Your task to perform on an android device: View the shopping cart on walmart.com. Search for "asus zenbook" on walmart.com, select the first entry, add it to the cart, then select checkout. Image 0: 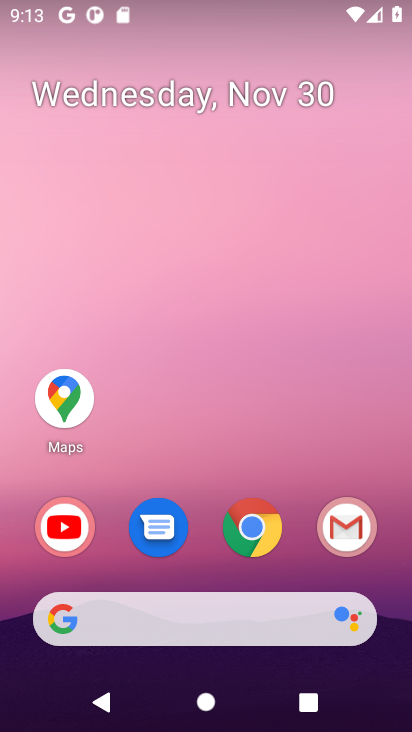
Step 0: click (247, 525)
Your task to perform on an android device: View the shopping cart on walmart.com. Search for "asus zenbook" on walmart.com, select the first entry, add it to the cart, then select checkout. Image 1: 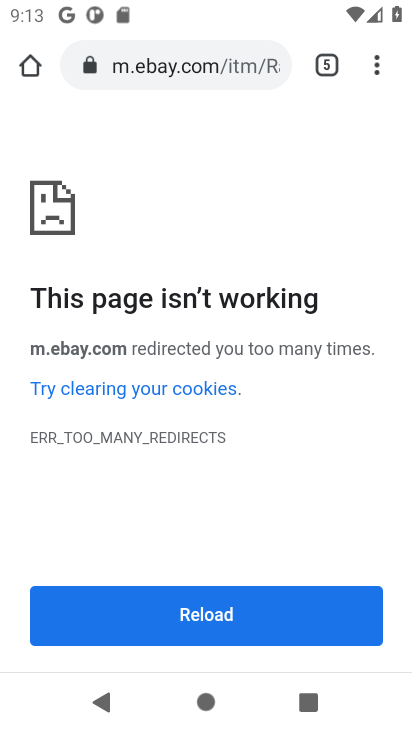
Step 1: click (216, 73)
Your task to perform on an android device: View the shopping cart on walmart.com. Search for "asus zenbook" on walmart.com, select the first entry, add it to the cart, then select checkout. Image 2: 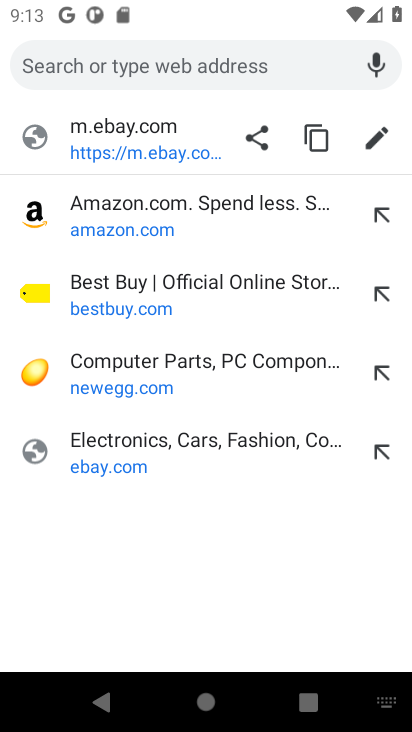
Step 2: type "walmart.com"
Your task to perform on an android device: View the shopping cart on walmart.com. Search for "asus zenbook" on walmart.com, select the first entry, add it to the cart, then select checkout. Image 3: 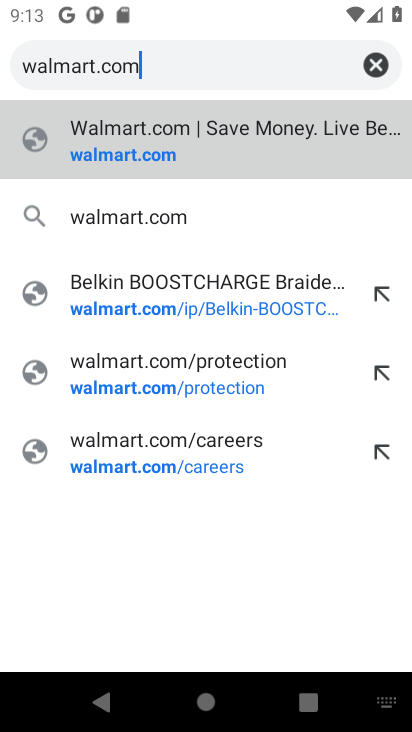
Step 3: click (141, 216)
Your task to perform on an android device: View the shopping cart on walmart.com. Search for "asus zenbook" on walmart.com, select the first entry, add it to the cart, then select checkout. Image 4: 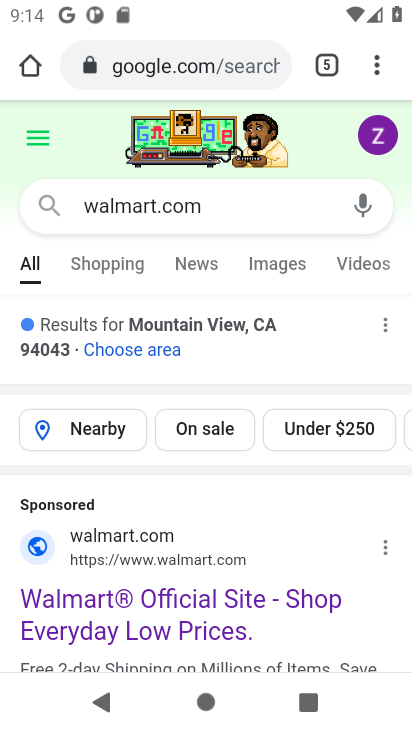
Step 4: click (174, 557)
Your task to perform on an android device: View the shopping cart on walmart.com. Search for "asus zenbook" on walmart.com, select the first entry, add it to the cart, then select checkout. Image 5: 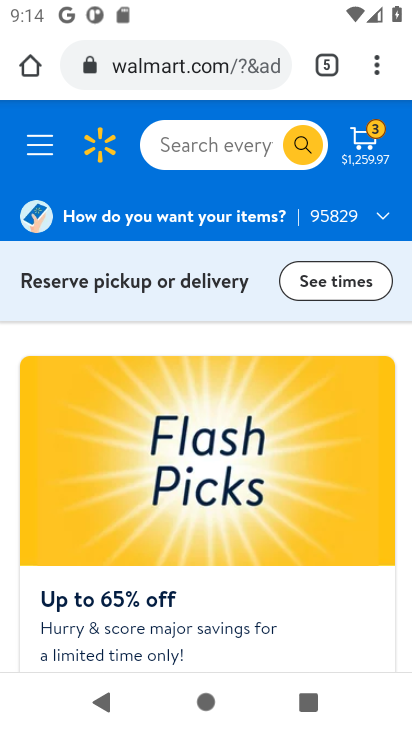
Step 5: click (210, 132)
Your task to perform on an android device: View the shopping cart on walmart.com. Search for "asus zenbook" on walmart.com, select the first entry, add it to the cart, then select checkout. Image 6: 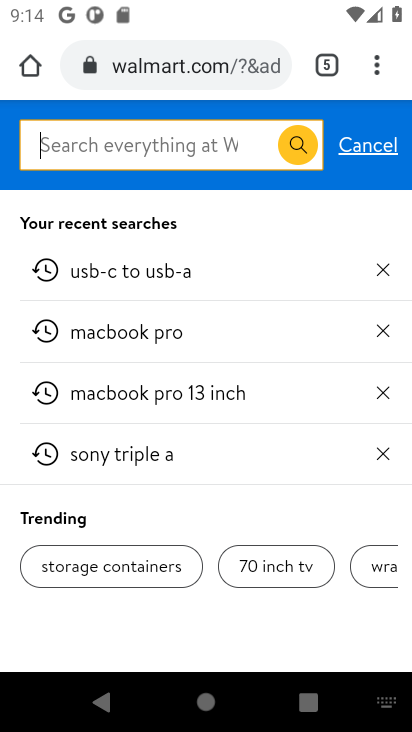
Step 6: type "asus zenbook"
Your task to perform on an android device: View the shopping cart on walmart.com. Search for "asus zenbook" on walmart.com, select the first entry, add it to the cart, then select checkout. Image 7: 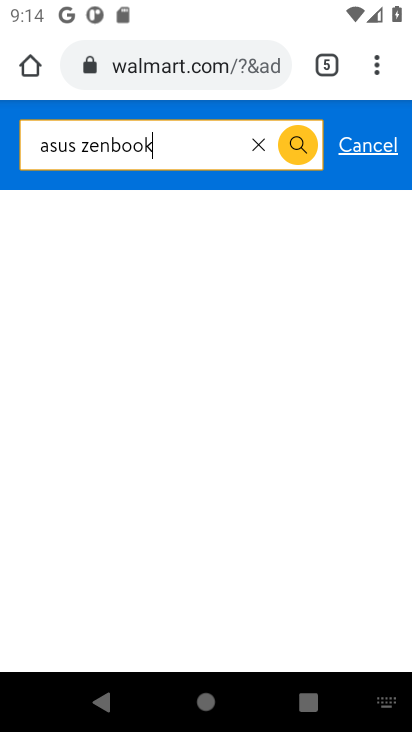
Step 7: press enter
Your task to perform on an android device: View the shopping cart on walmart.com. Search for "asus zenbook" on walmart.com, select the first entry, add it to the cart, then select checkout. Image 8: 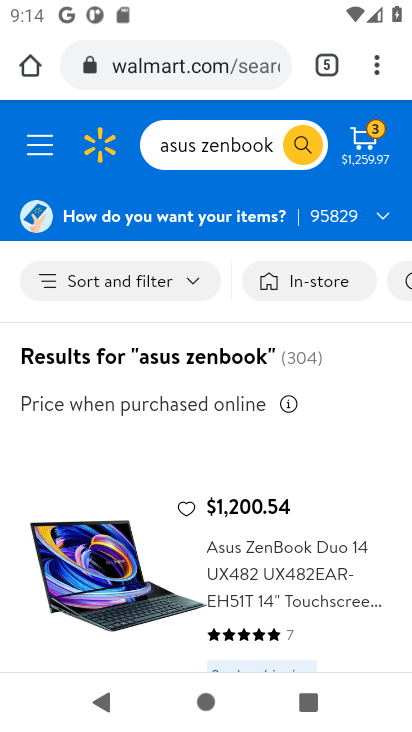
Step 8: click (92, 566)
Your task to perform on an android device: View the shopping cart on walmart.com. Search for "asus zenbook" on walmart.com, select the first entry, add it to the cart, then select checkout. Image 9: 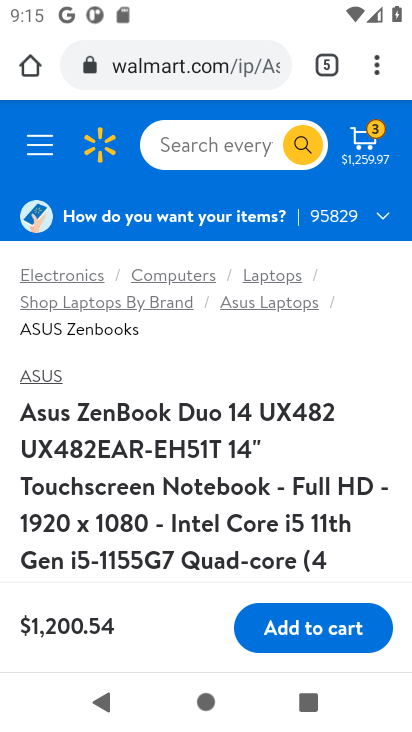
Step 9: drag from (198, 474) to (263, 163)
Your task to perform on an android device: View the shopping cart on walmart.com. Search for "asus zenbook" on walmart.com, select the first entry, add it to the cart, then select checkout. Image 10: 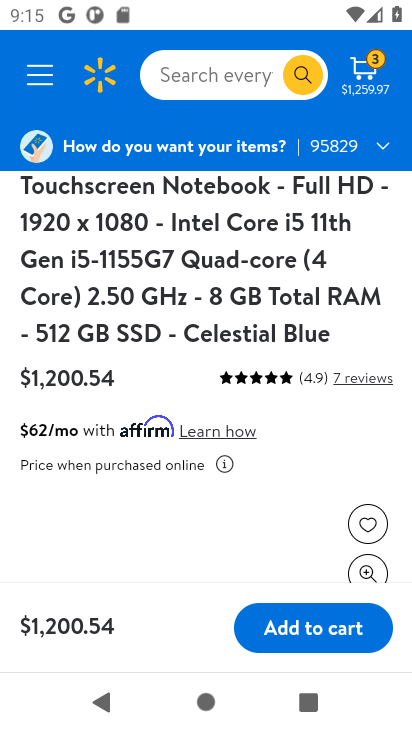
Step 10: click (321, 620)
Your task to perform on an android device: View the shopping cart on walmart.com. Search for "asus zenbook" on walmart.com, select the first entry, add it to the cart, then select checkout. Image 11: 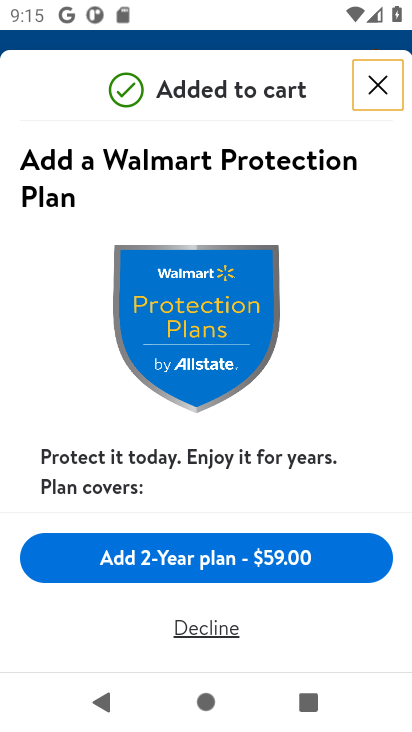
Step 11: click (376, 95)
Your task to perform on an android device: View the shopping cart on walmart.com. Search for "asus zenbook" on walmart.com, select the first entry, add it to the cart, then select checkout. Image 12: 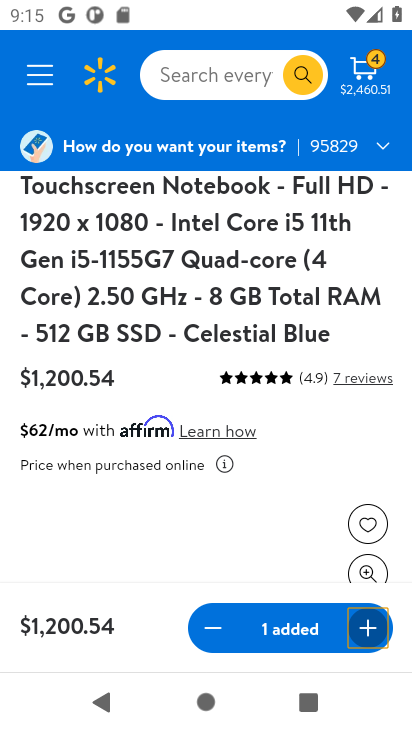
Step 12: task complete